Your task to perform on an android device: set an alarm Image 0: 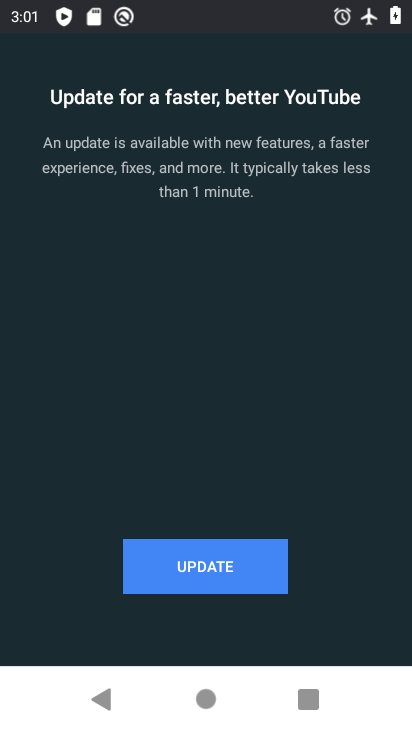
Step 0: press home button
Your task to perform on an android device: set an alarm Image 1: 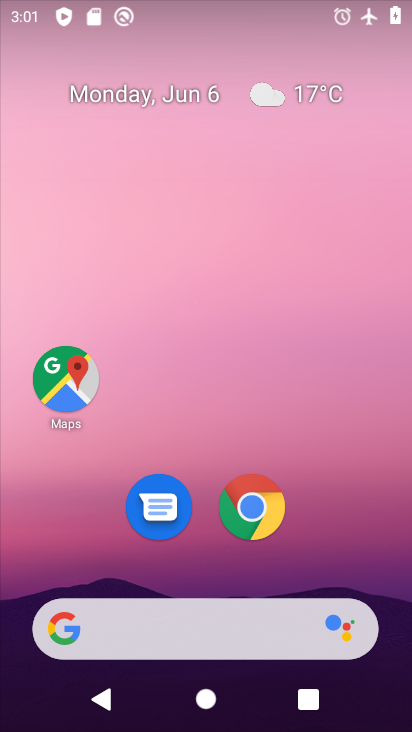
Step 1: drag from (325, 542) to (350, 127)
Your task to perform on an android device: set an alarm Image 2: 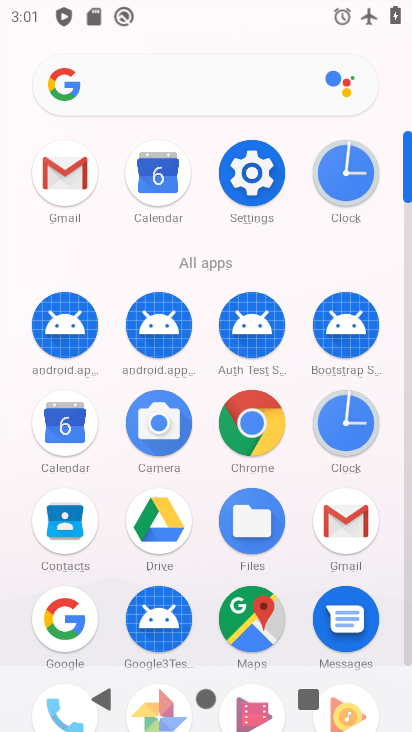
Step 2: click (353, 163)
Your task to perform on an android device: set an alarm Image 3: 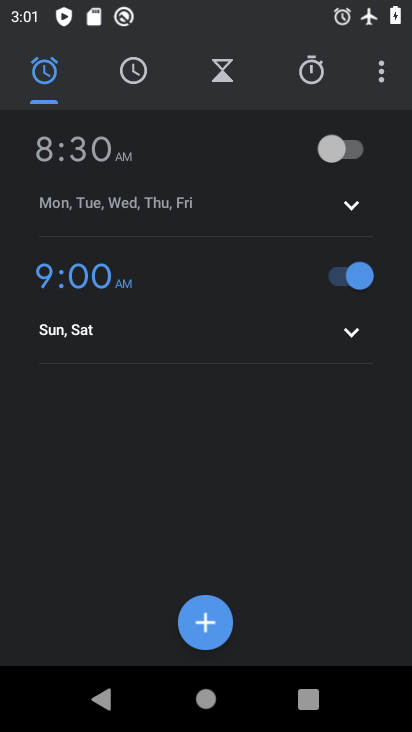
Step 3: click (342, 144)
Your task to perform on an android device: set an alarm Image 4: 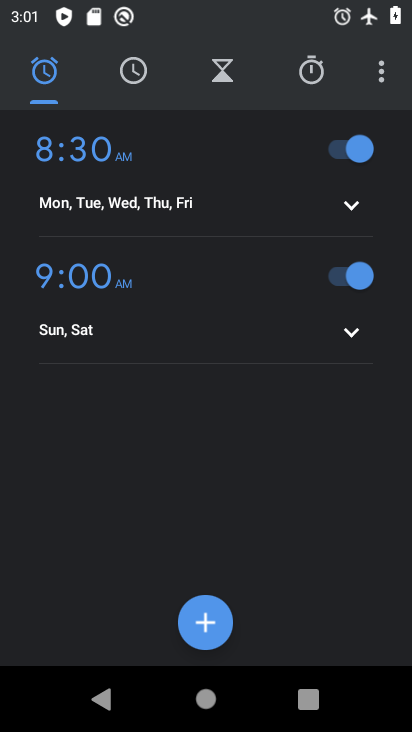
Step 4: task complete